Your task to perform on an android device: stop showing notifications on the lock screen Image 0: 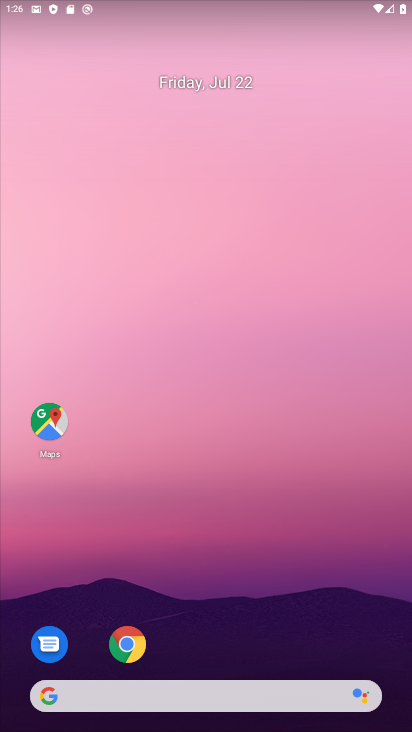
Step 0: drag from (163, 646) to (198, 154)
Your task to perform on an android device: stop showing notifications on the lock screen Image 1: 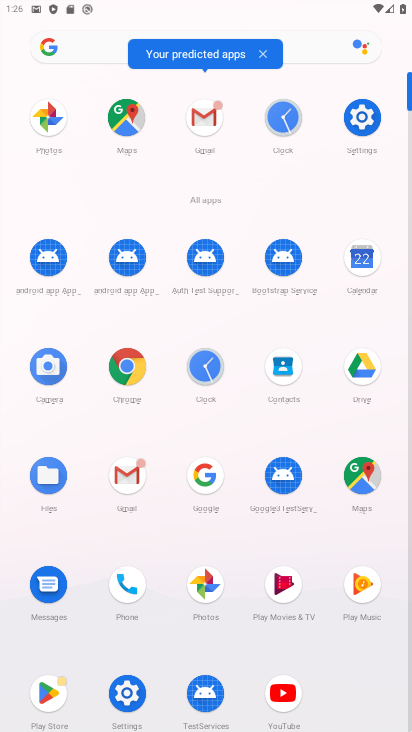
Step 1: click (370, 117)
Your task to perform on an android device: stop showing notifications on the lock screen Image 2: 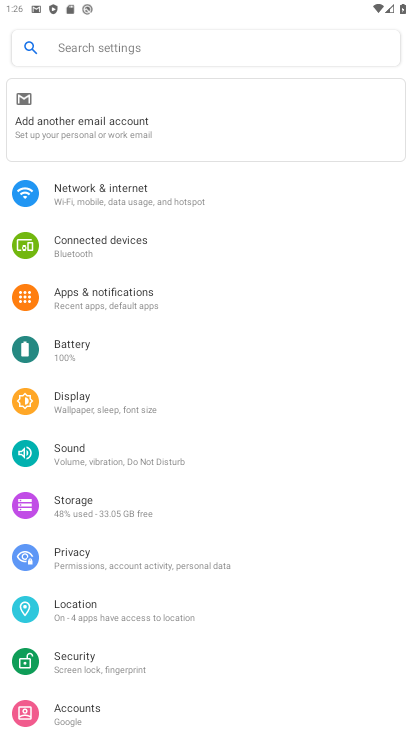
Step 2: click (159, 296)
Your task to perform on an android device: stop showing notifications on the lock screen Image 3: 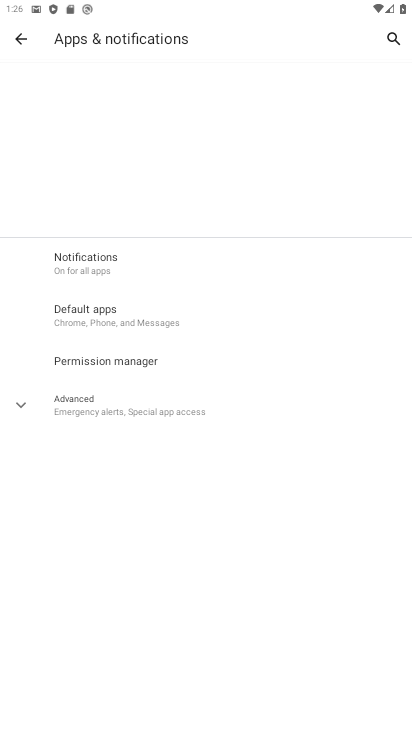
Step 3: click (104, 262)
Your task to perform on an android device: stop showing notifications on the lock screen Image 4: 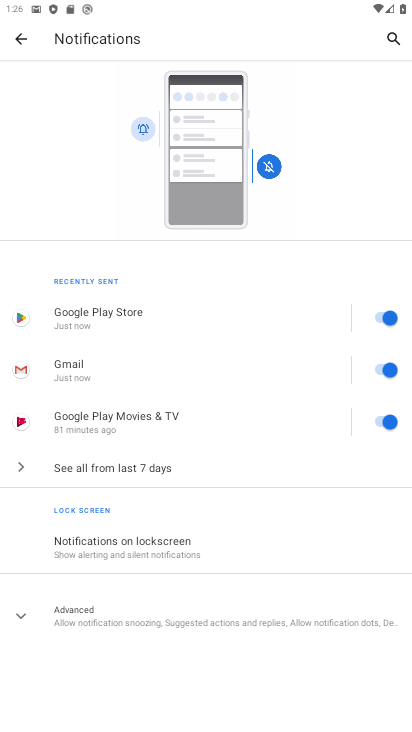
Step 4: click (144, 556)
Your task to perform on an android device: stop showing notifications on the lock screen Image 5: 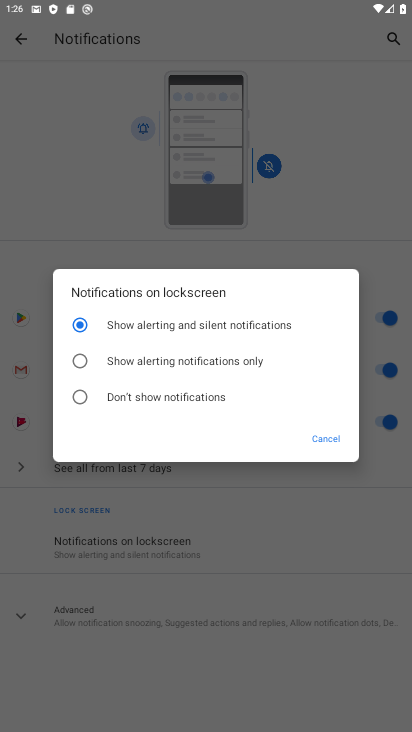
Step 5: click (80, 398)
Your task to perform on an android device: stop showing notifications on the lock screen Image 6: 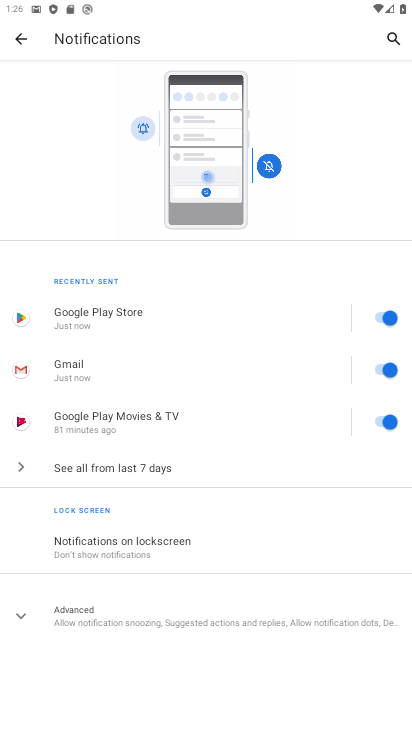
Step 6: task complete